Your task to perform on an android device: open app "Booking.com: Hotels and more" (install if not already installed) Image 0: 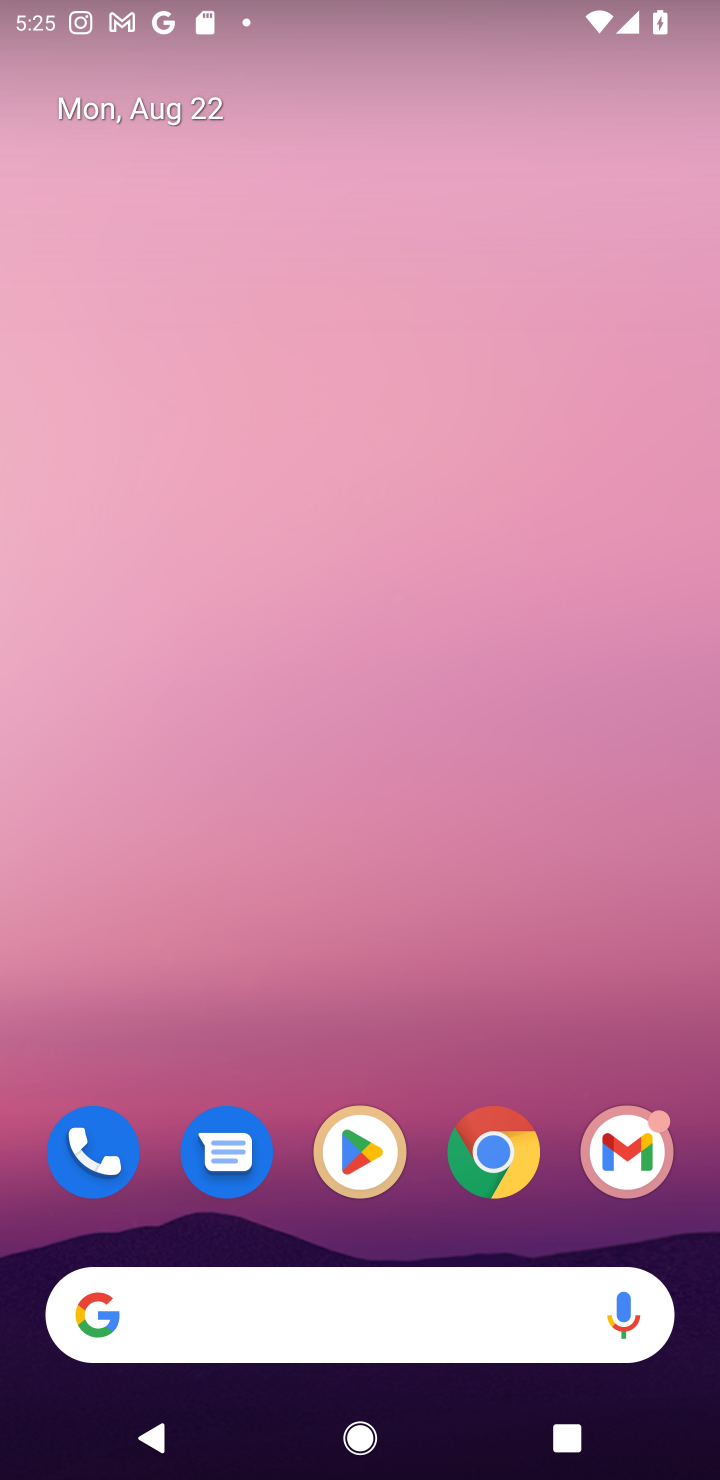
Step 0: click (375, 1179)
Your task to perform on an android device: open app "Booking.com: Hotels and more" (install if not already installed) Image 1: 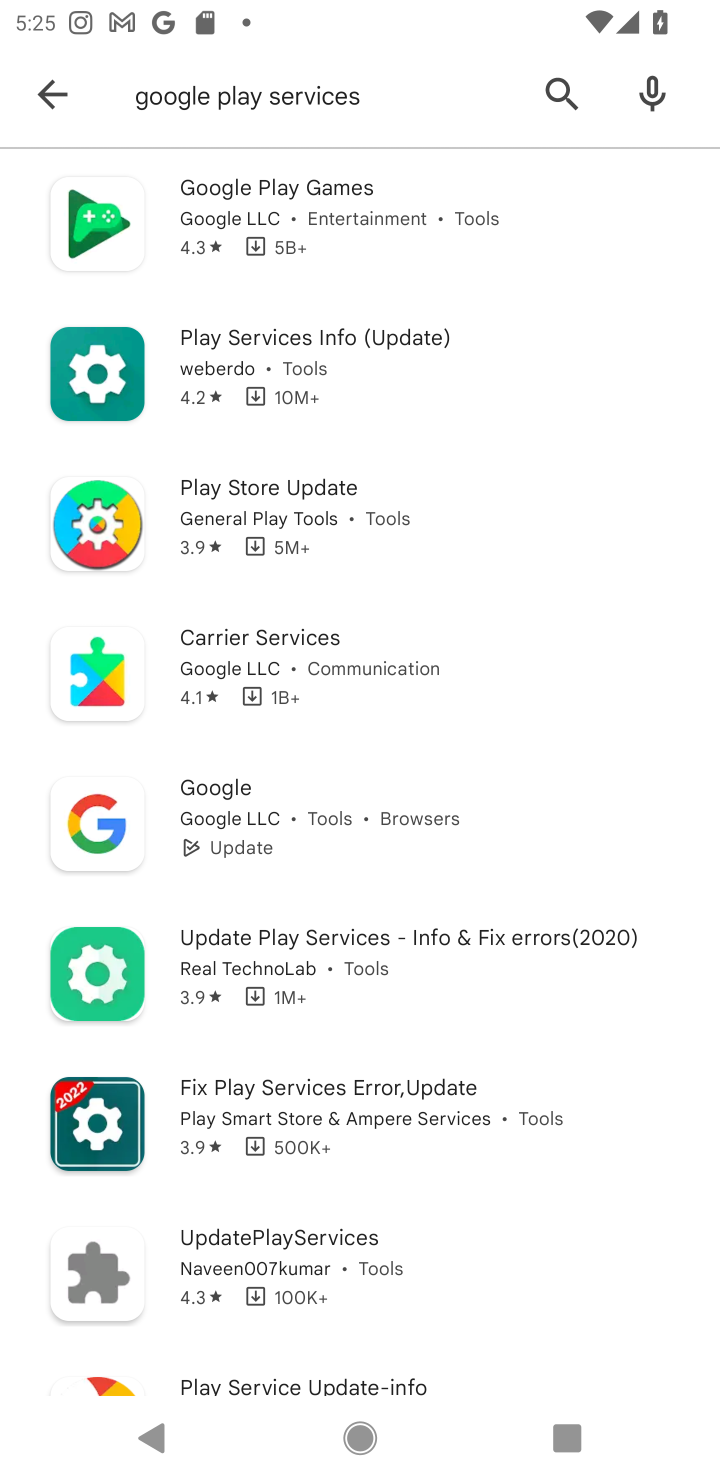
Step 1: click (22, 77)
Your task to perform on an android device: open app "Booking.com: Hotels and more" (install if not already installed) Image 2: 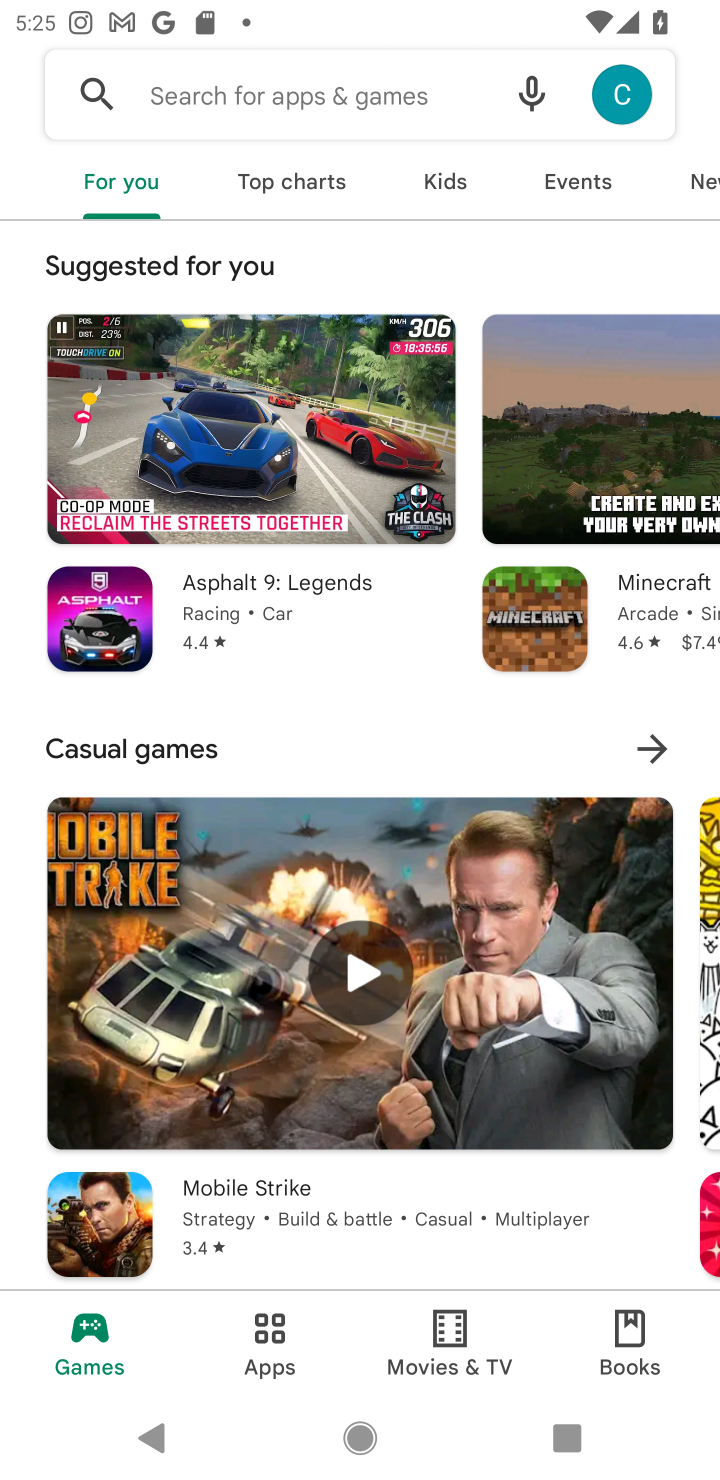
Step 2: click (154, 67)
Your task to perform on an android device: open app "Booking.com: Hotels and more" (install if not already installed) Image 3: 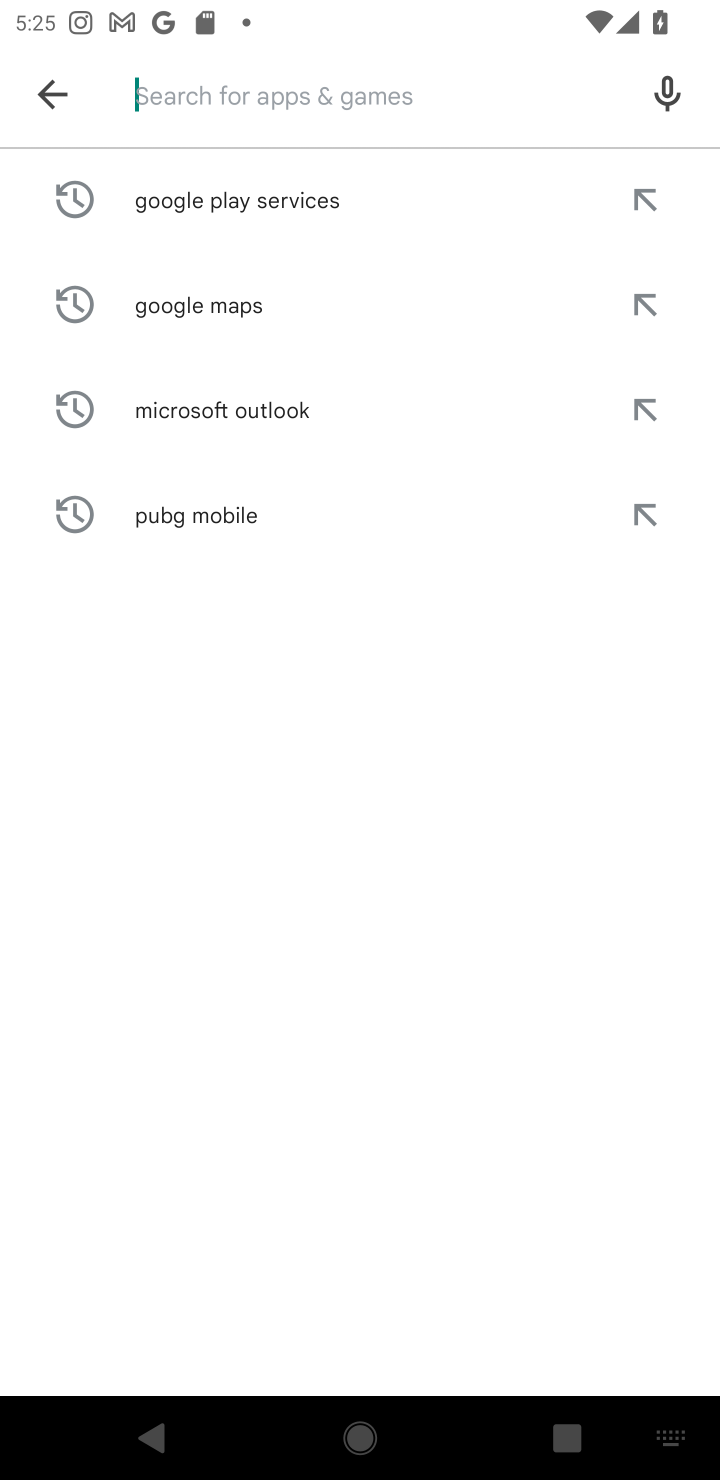
Step 3: type "Booking.com: Hotels and more"
Your task to perform on an android device: open app "Booking.com: Hotels and more" (install if not already installed) Image 4: 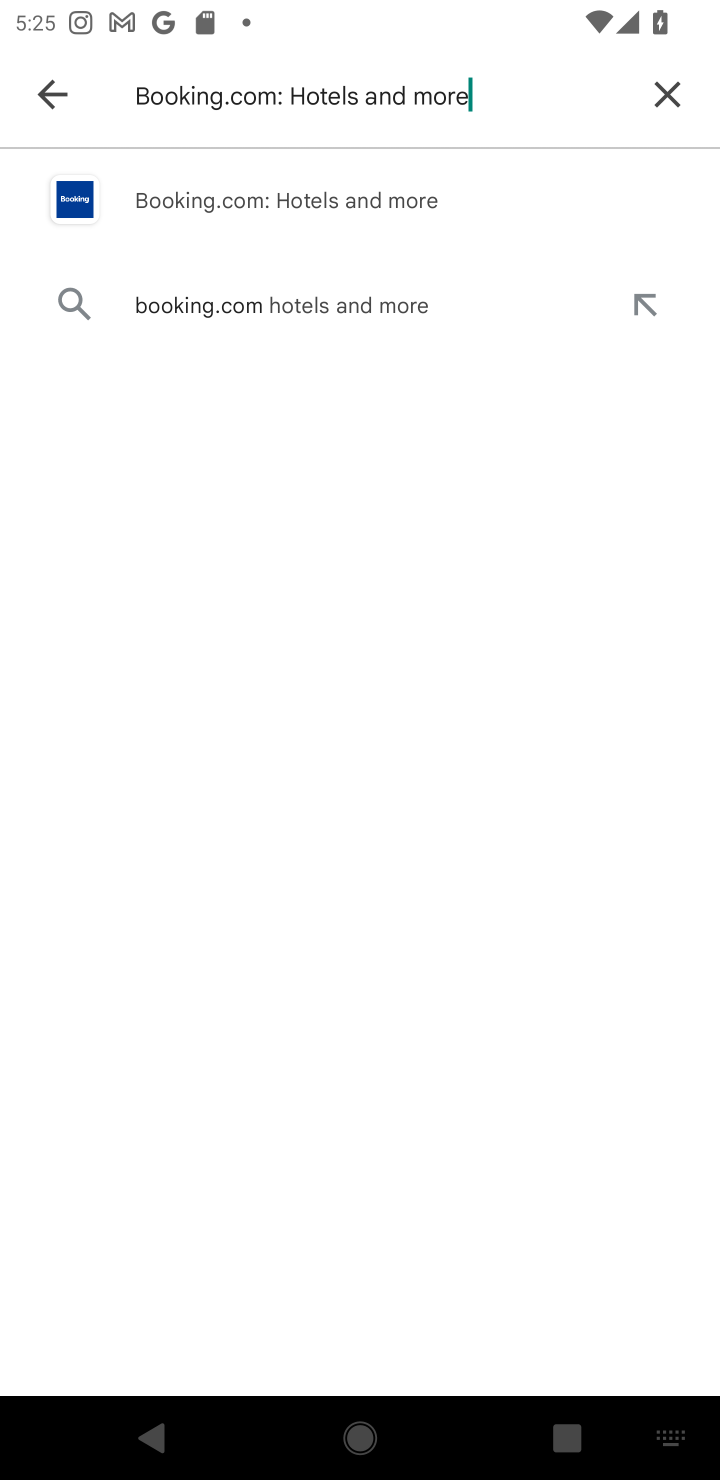
Step 4: click (224, 198)
Your task to perform on an android device: open app "Booking.com: Hotels and more" (install if not already installed) Image 5: 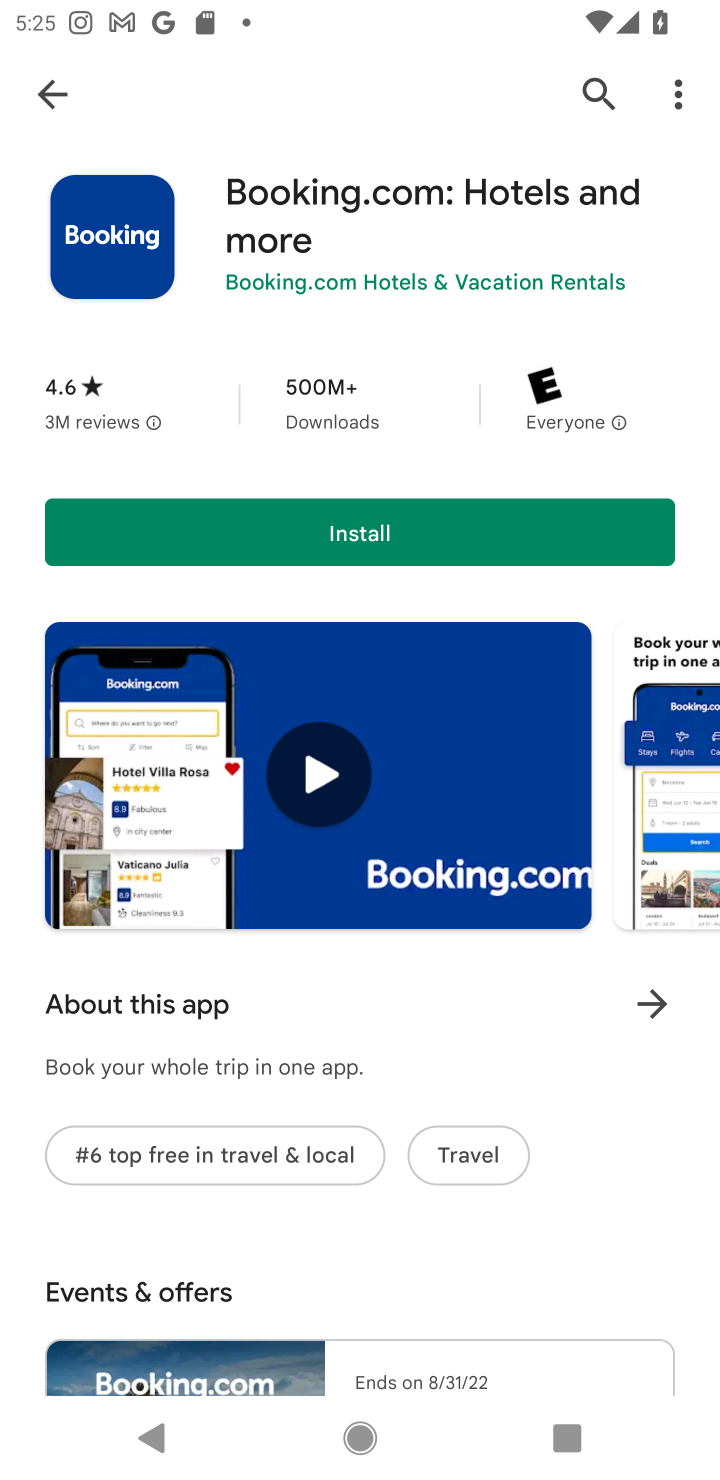
Step 5: click (277, 553)
Your task to perform on an android device: open app "Booking.com: Hotels and more" (install if not already installed) Image 6: 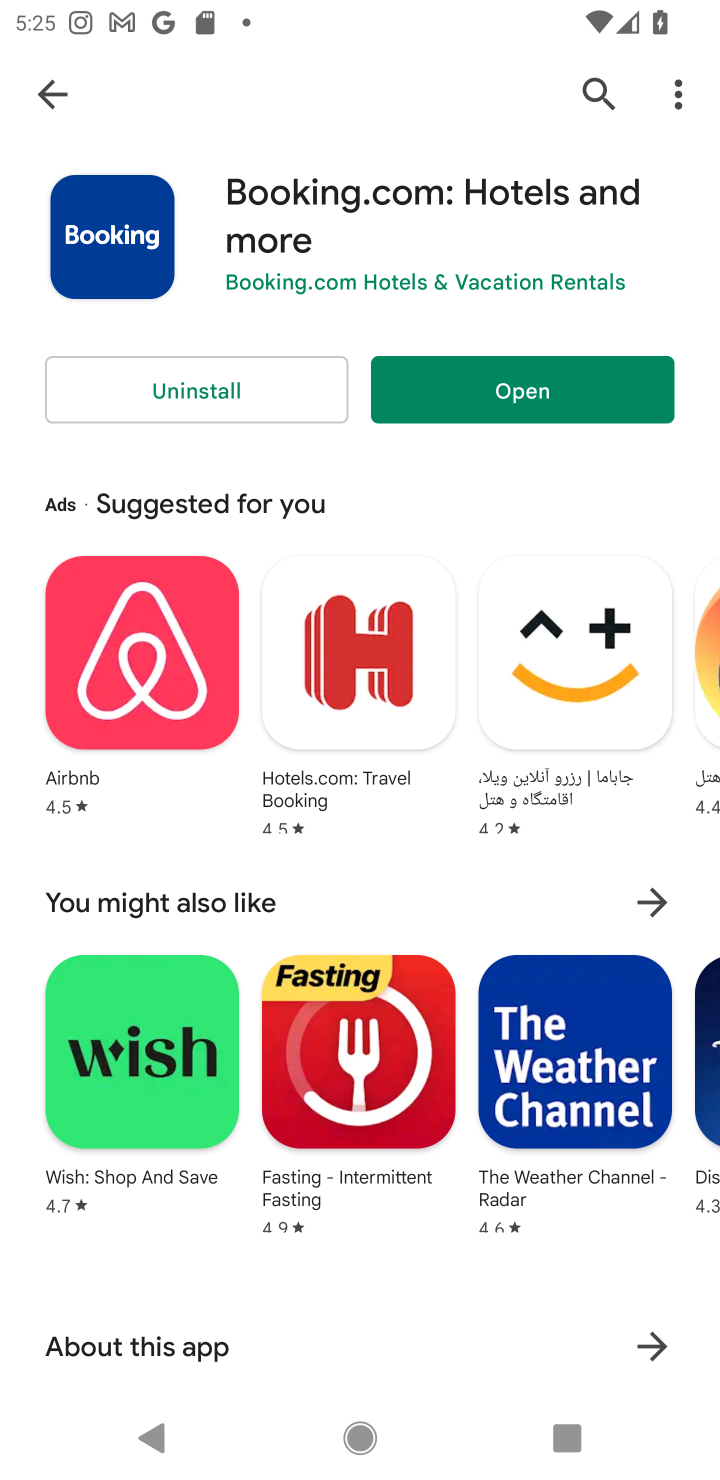
Step 6: click (471, 382)
Your task to perform on an android device: open app "Booking.com: Hotels and more" (install if not already installed) Image 7: 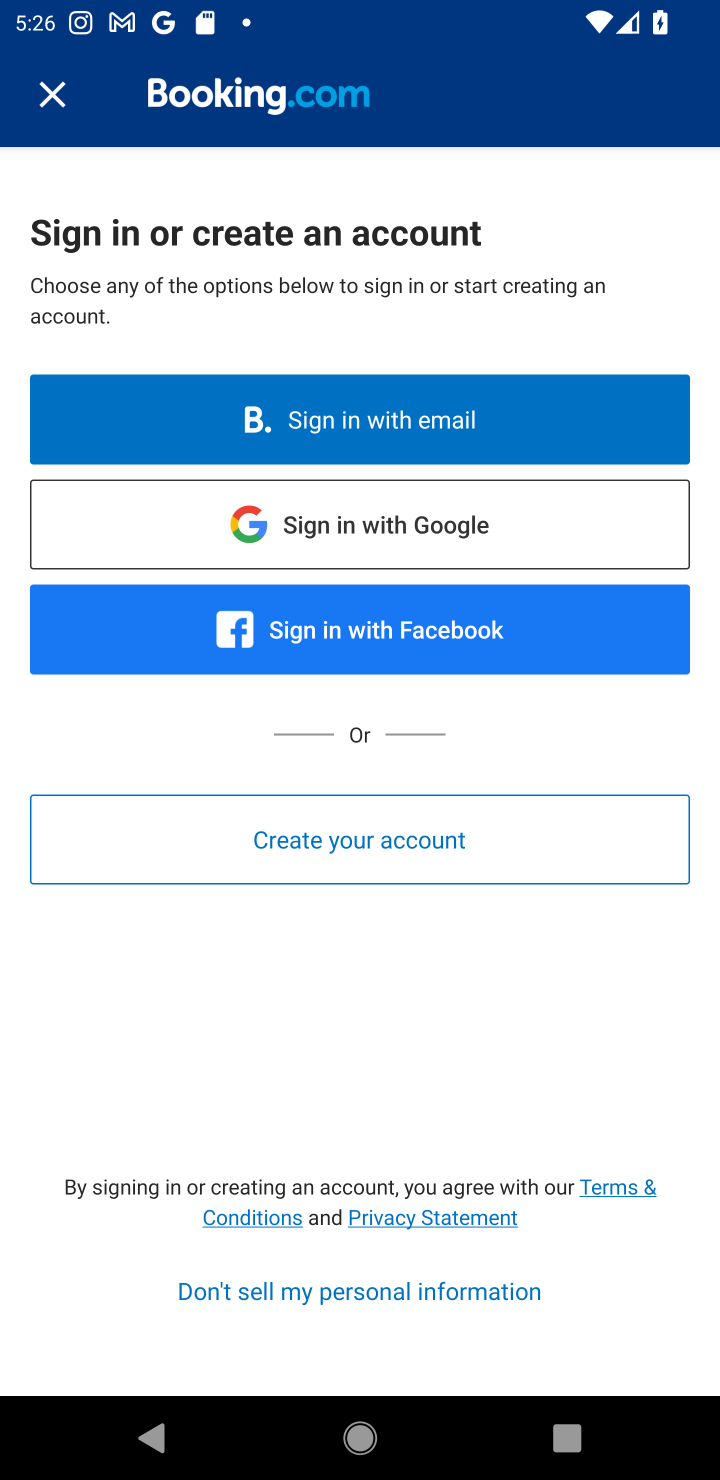
Step 7: task complete